Your task to perform on an android device: change the clock display to digital Image 0: 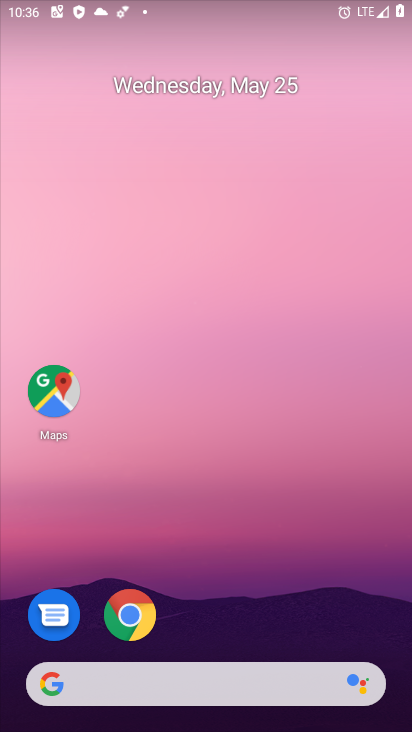
Step 0: drag from (272, 616) to (303, 74)
Your task to perform on an android device: change the clock display to digital Image 1: 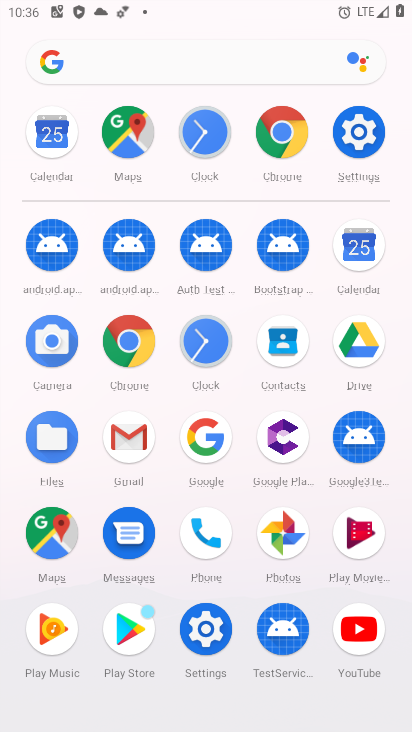
Step 1: click (211, 137)
Your task to perform on an android device: change the clock display to digital Image 2: 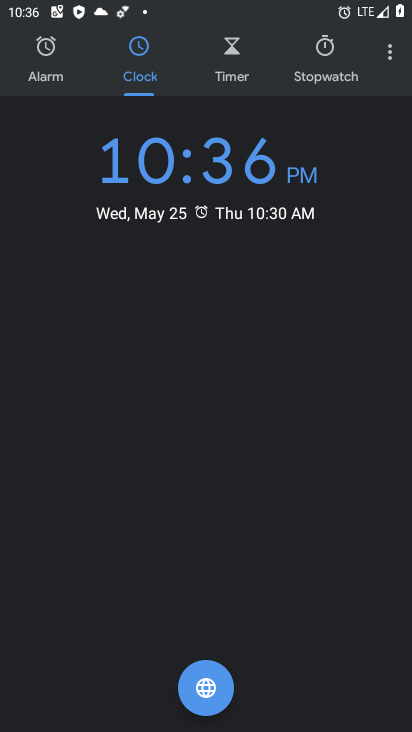
Step 2: task complete